Your task to perform on an android device: open app "Gmail" Image 0: 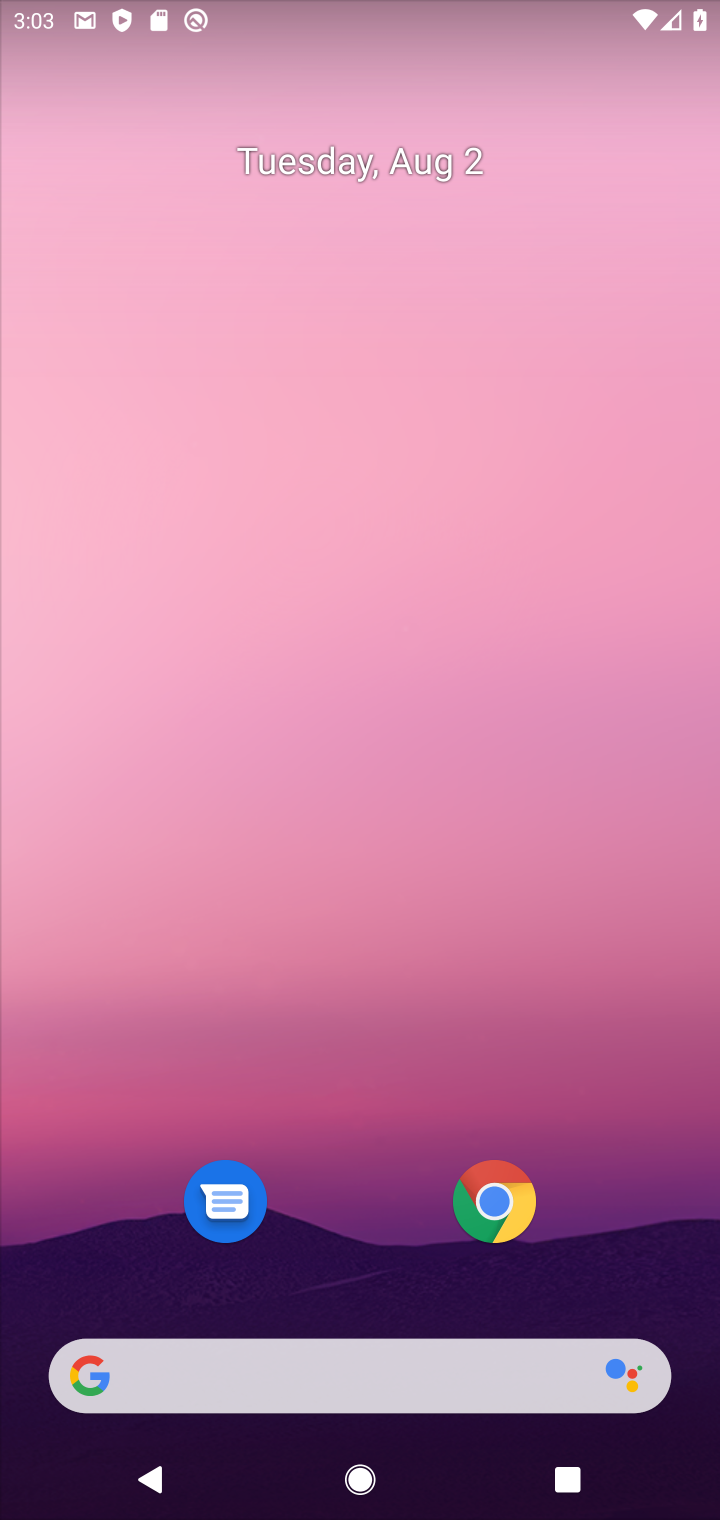
Step 0: press home button
Your task to perform on an android device: open app "Gmail" Image 1: 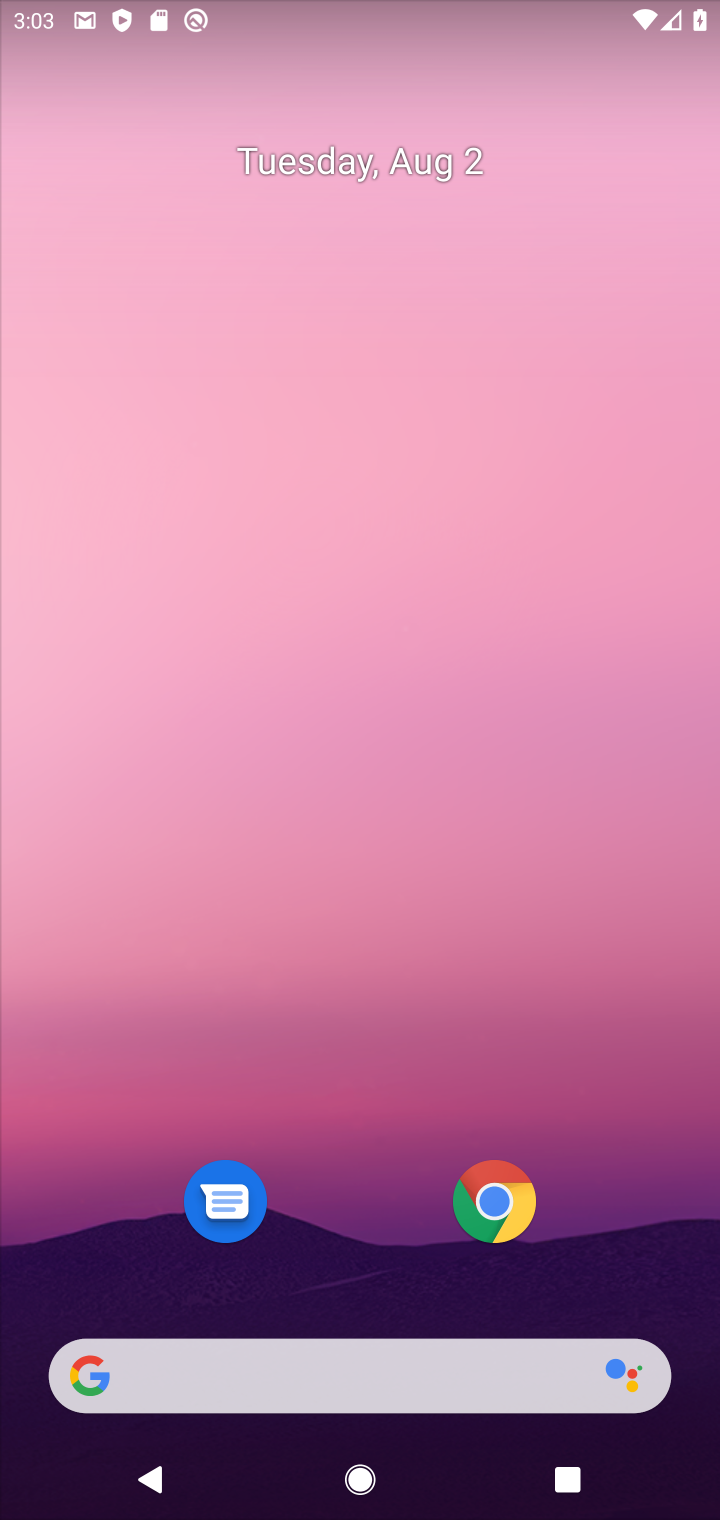
Step 1: drag from (368, 1281) to (458, 0)
Your task to perform on an android device: open app "Gmail" Image 2: 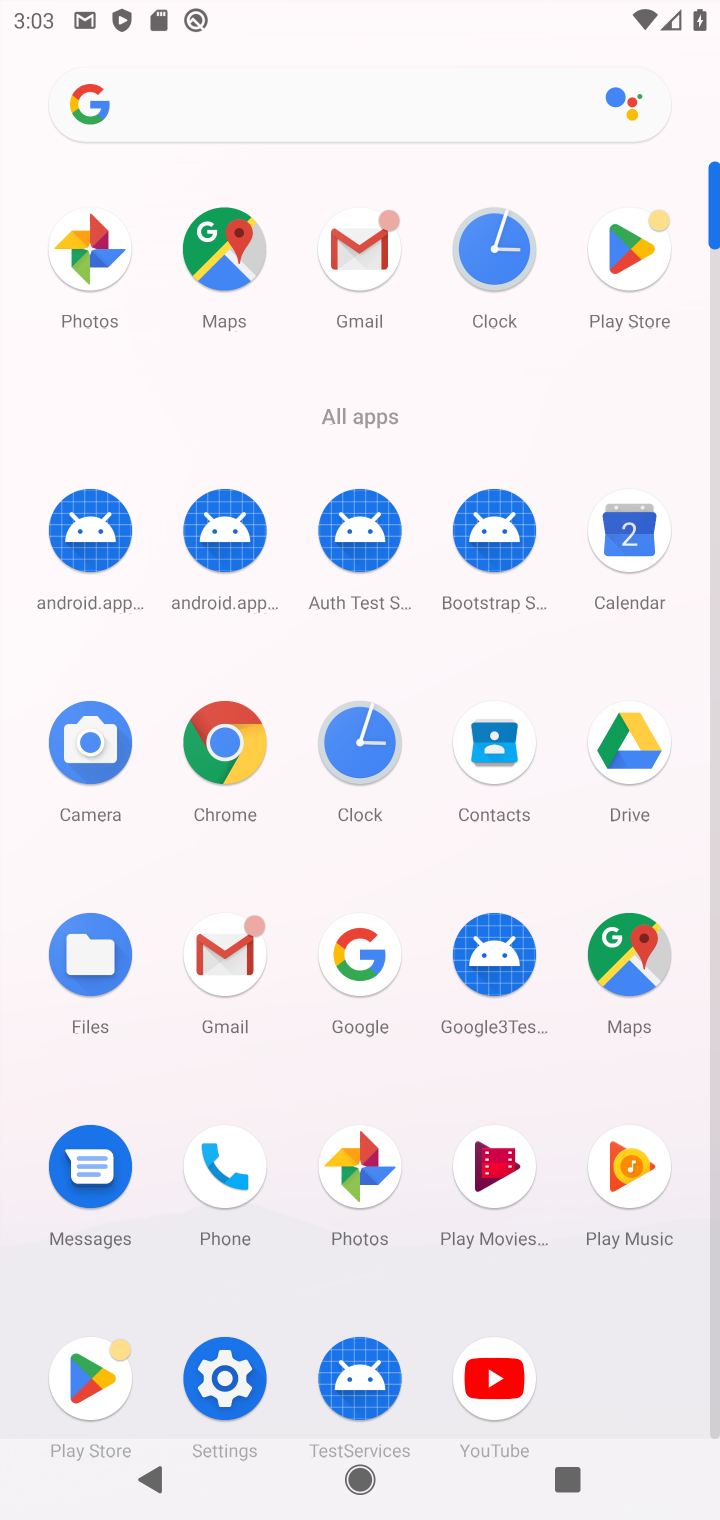
Step 2: click (634, 248)
Your task to perform on an android device: open app "Gmail" Image 3: 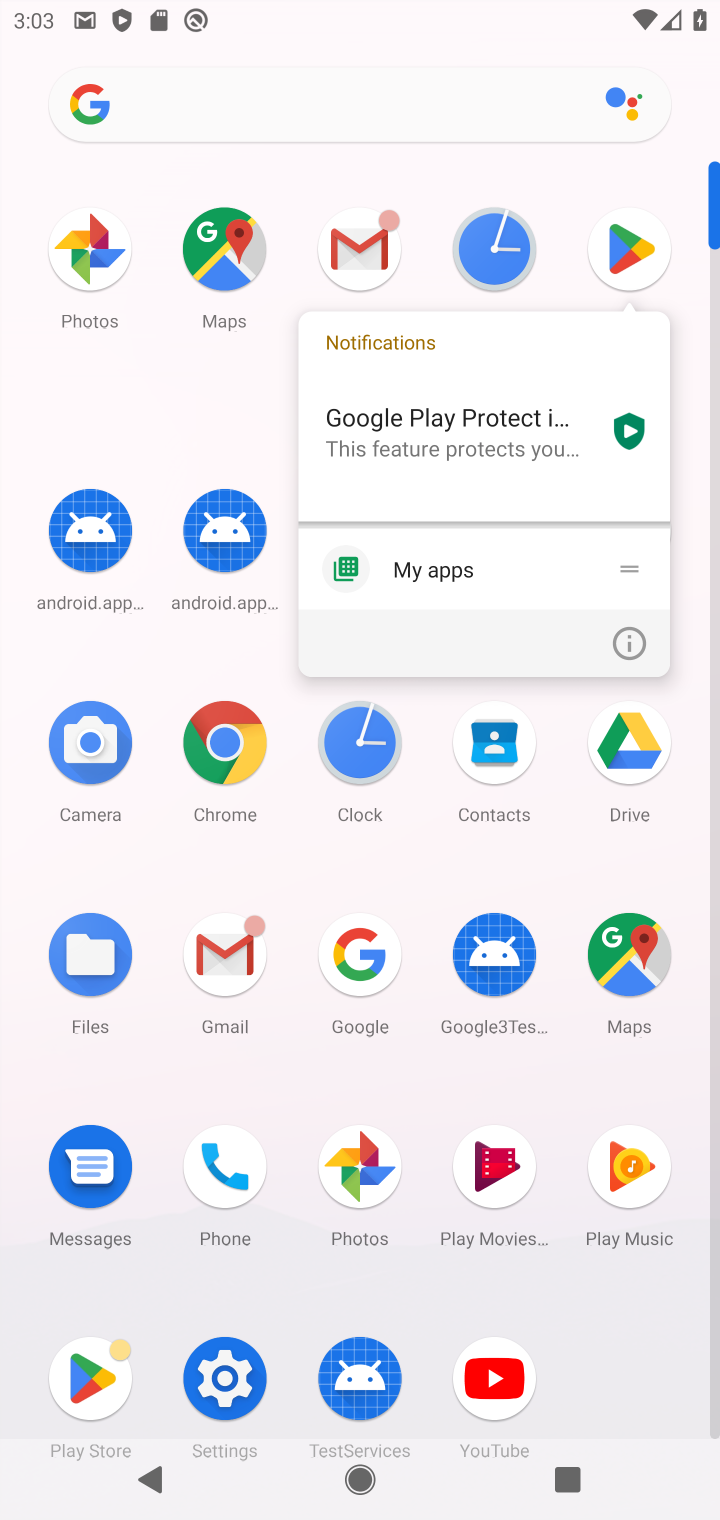
Step 3: click (623, 241)
Your task to perform on an android device: open app "Gmail" Image 4: 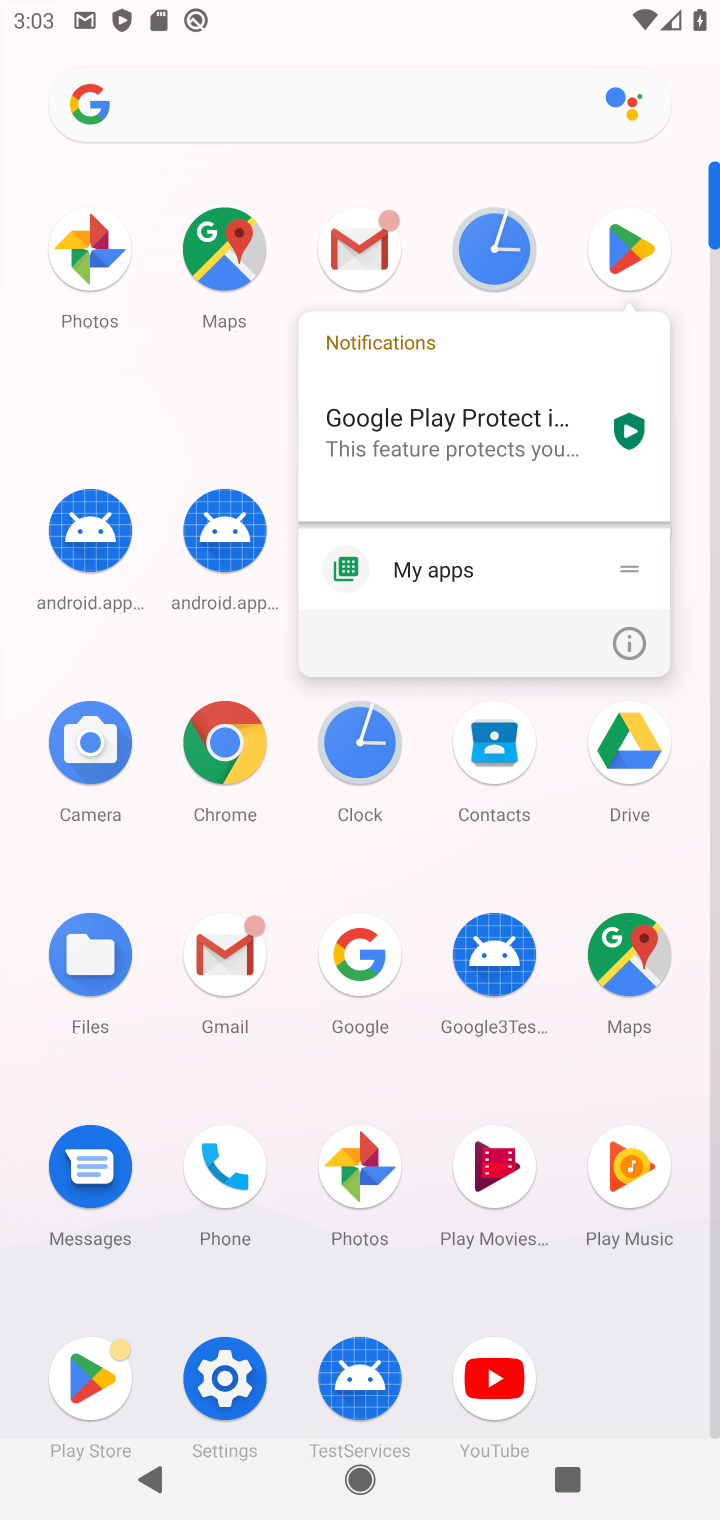
Step 4: click (627, 242)
Your task to perform on an android device: open app "Gmail" Image 5: 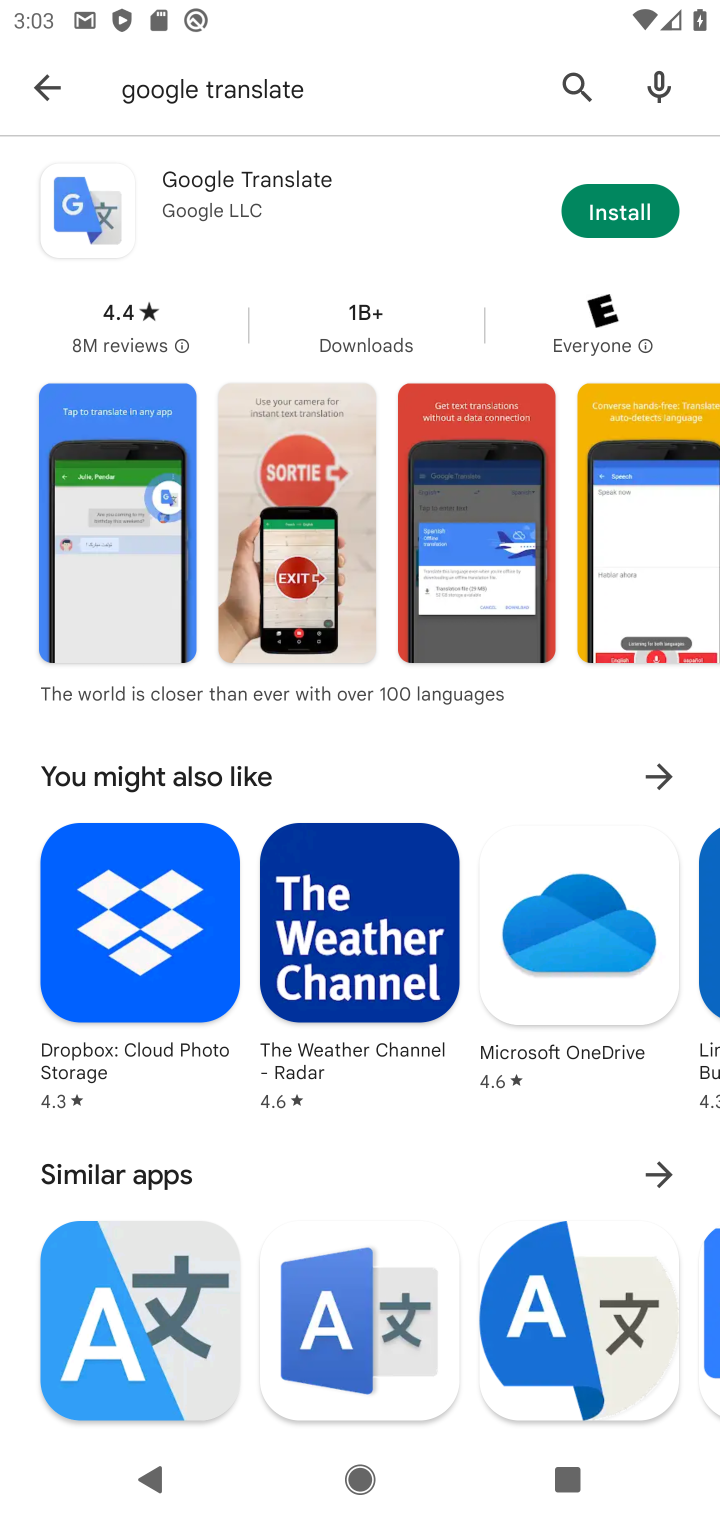
Step 5: click (567, 81)
Your task to perform on an android device: open app "Gmail" Image 6: 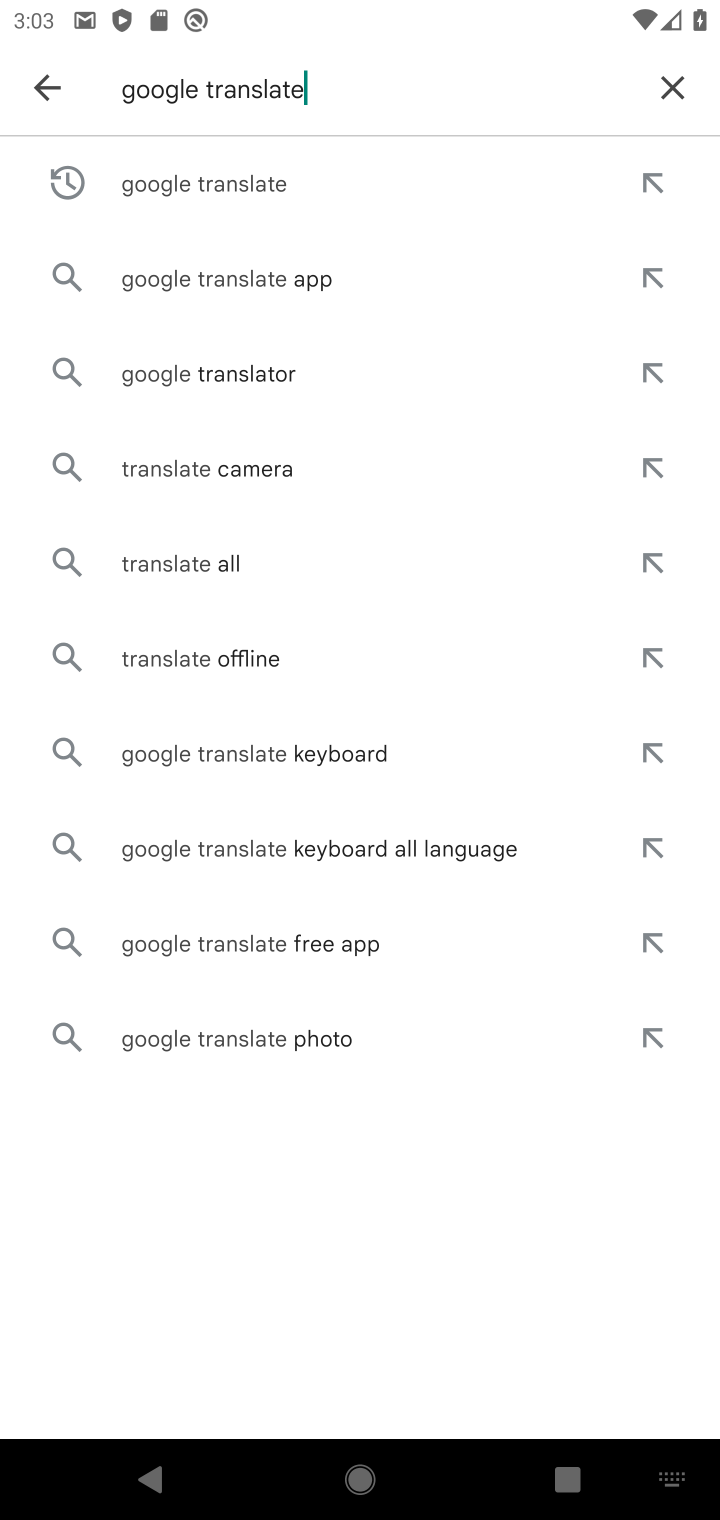
Step 6: click (676, 91)
Your task to perform on an android device: open app "Gmail" Image 7: 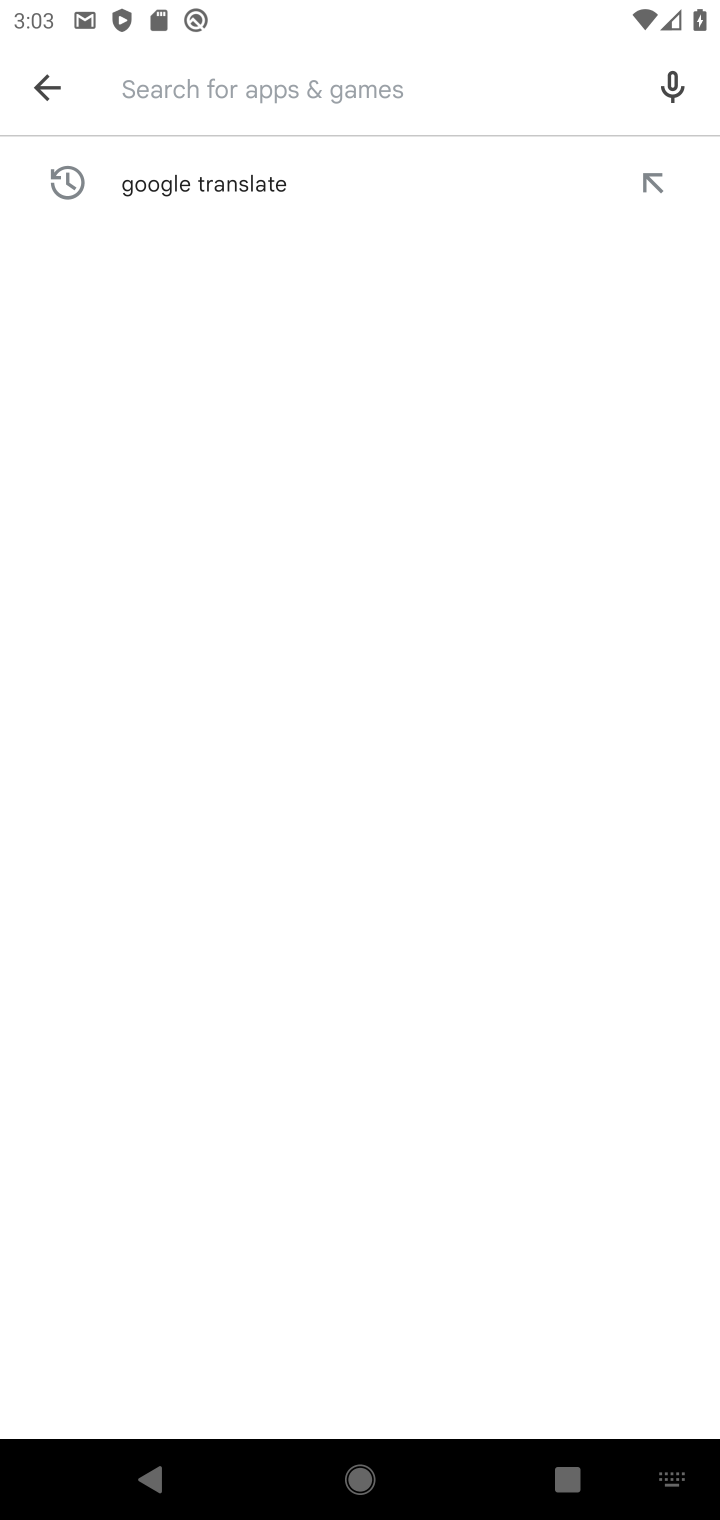
Step 7: type "gmail"
Your task to perform on an android device: open app "Gmail" Image 8: 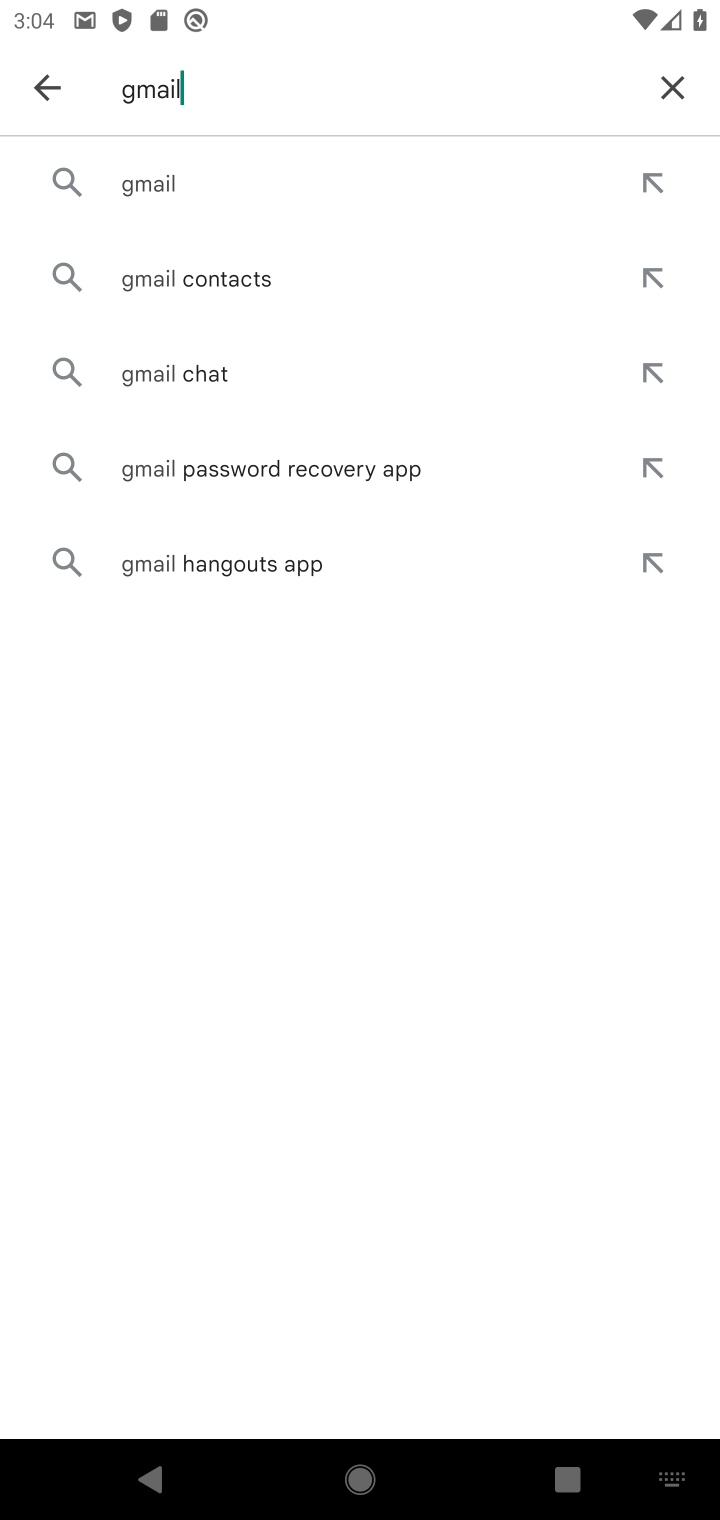
Step 8: click (149, 167)
Your task to perform on an android device: open app "Gmail" Image 9: 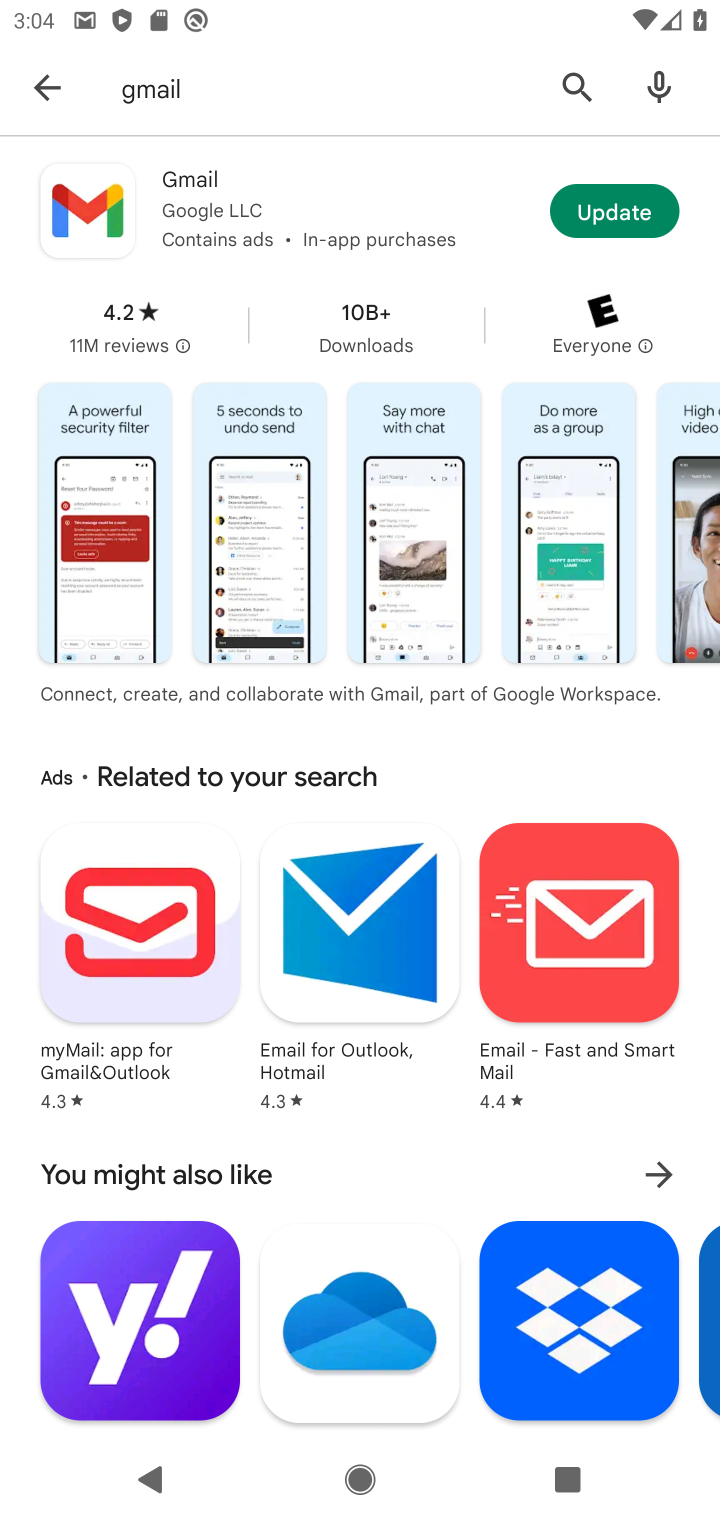
Step 9: click (613, 212)
Your task to perform on an android device: open app "Gmail" Image 10: 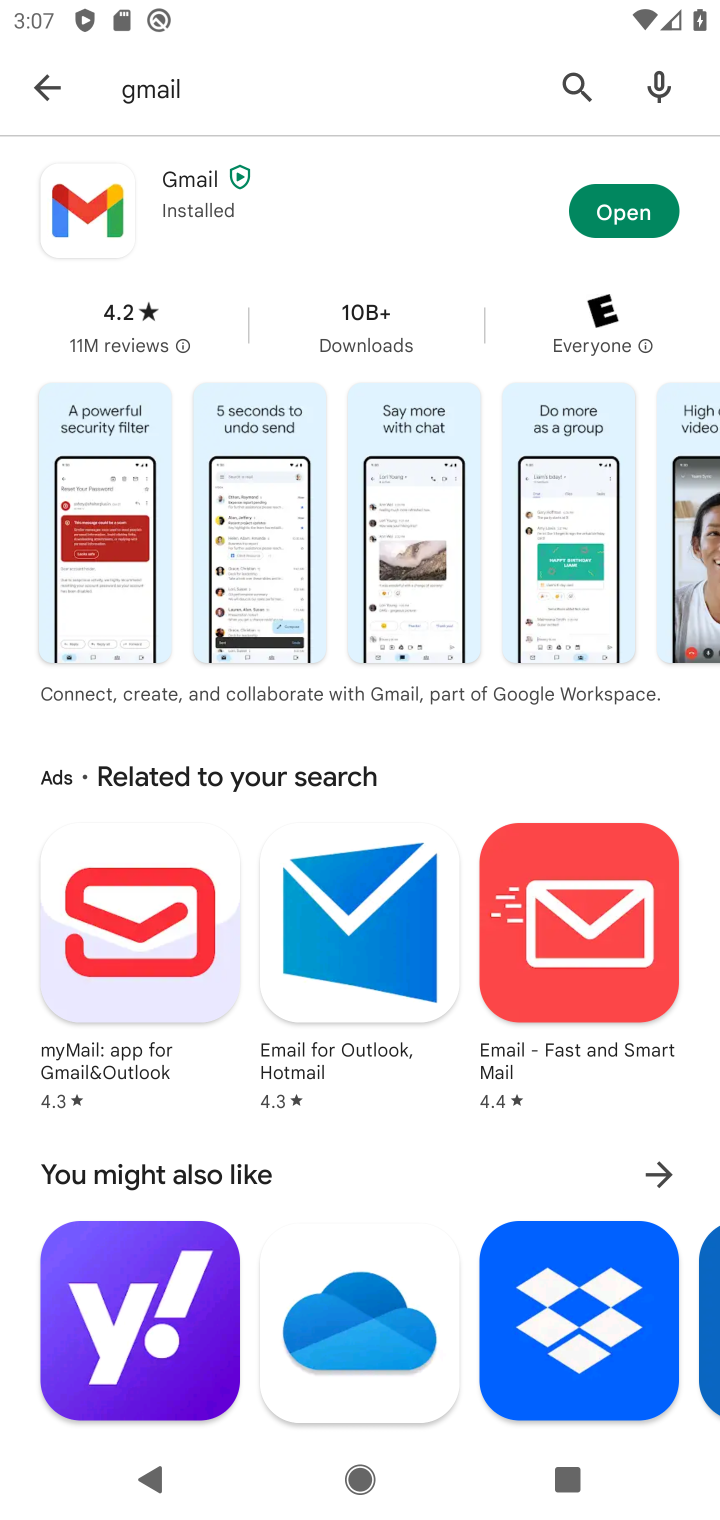
Step 10: click (625, 206)
Your task to perform on an android device: open app "Gmail" Image 11: 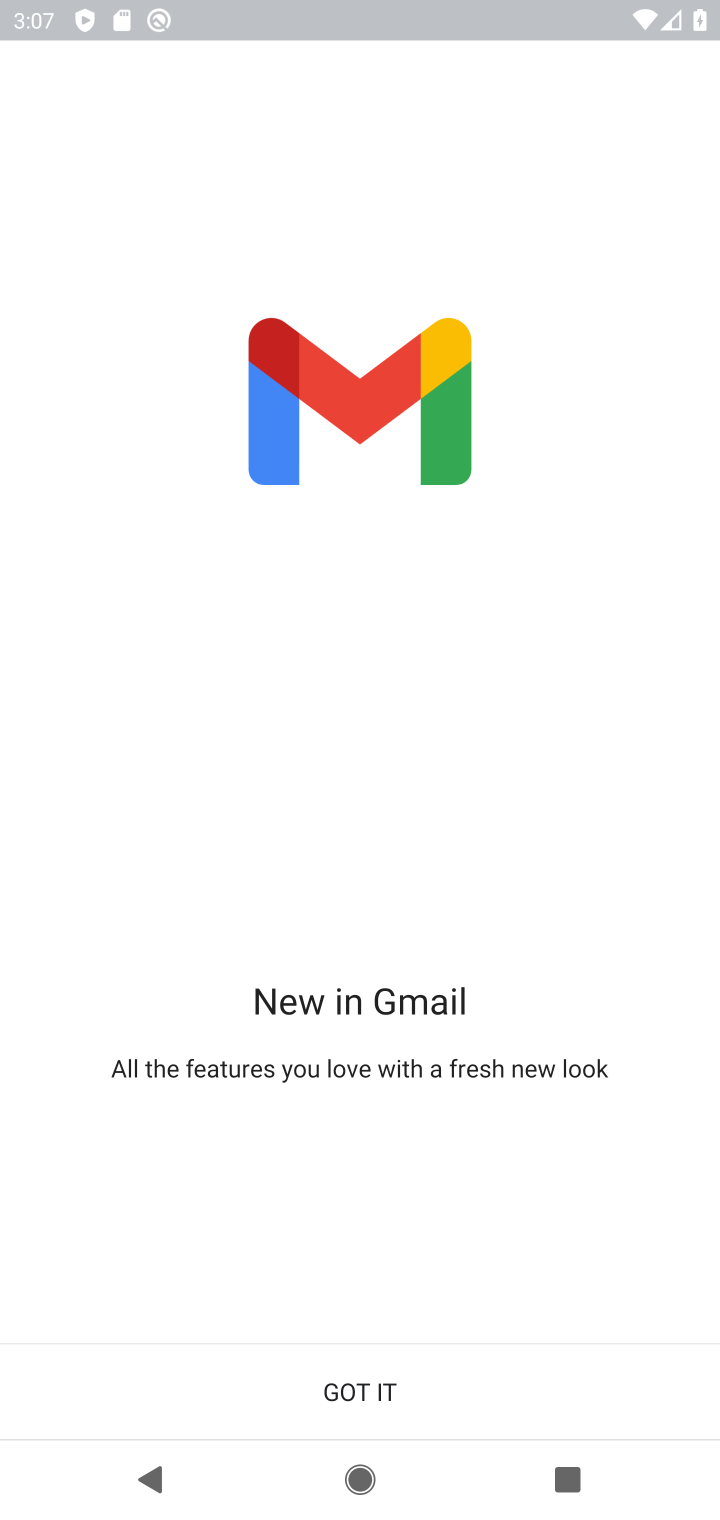
Step 11: click (336, 1390)
Your task to perform on an android device: open app "Gmail" Image 12: 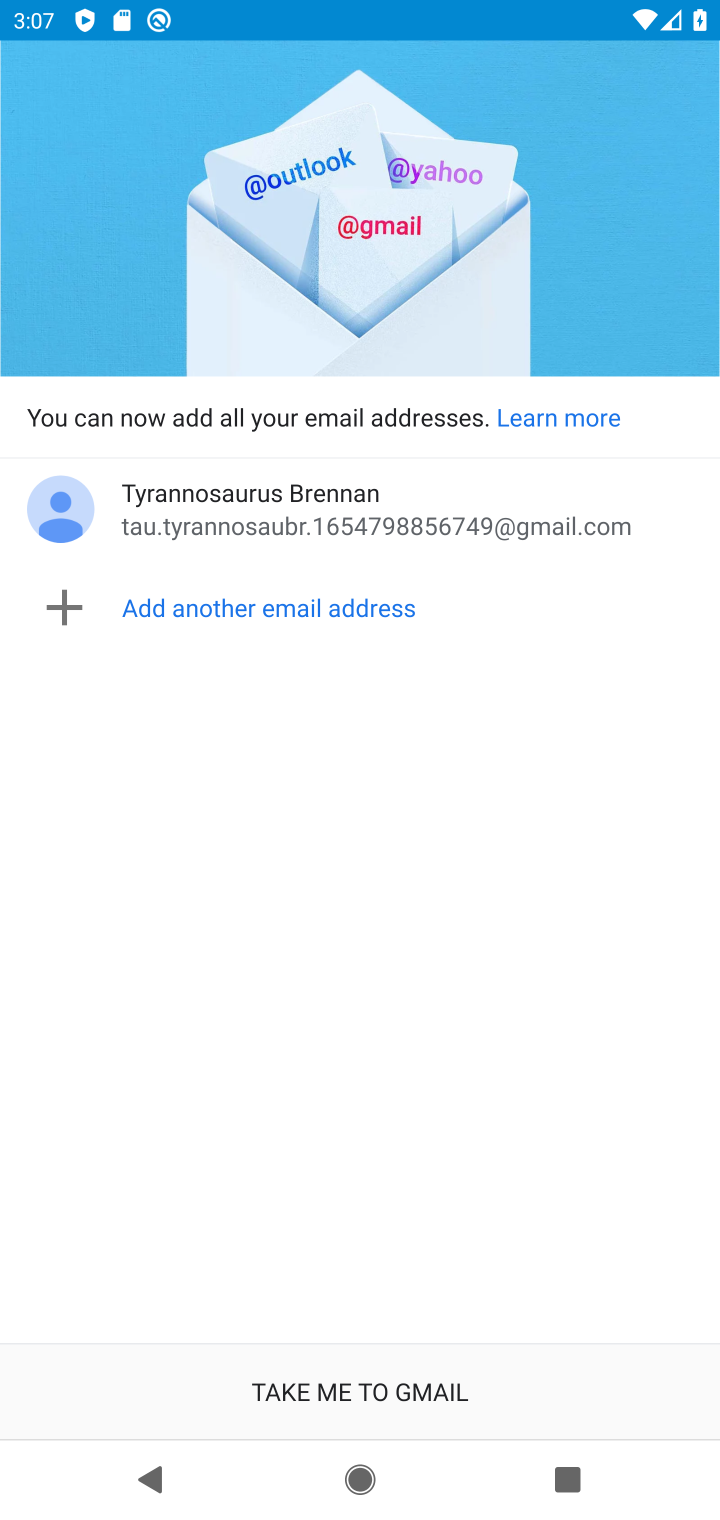
Step 12: click (354, 1409)
Your task to perform on an android device: open app "Gmail" Image 13: 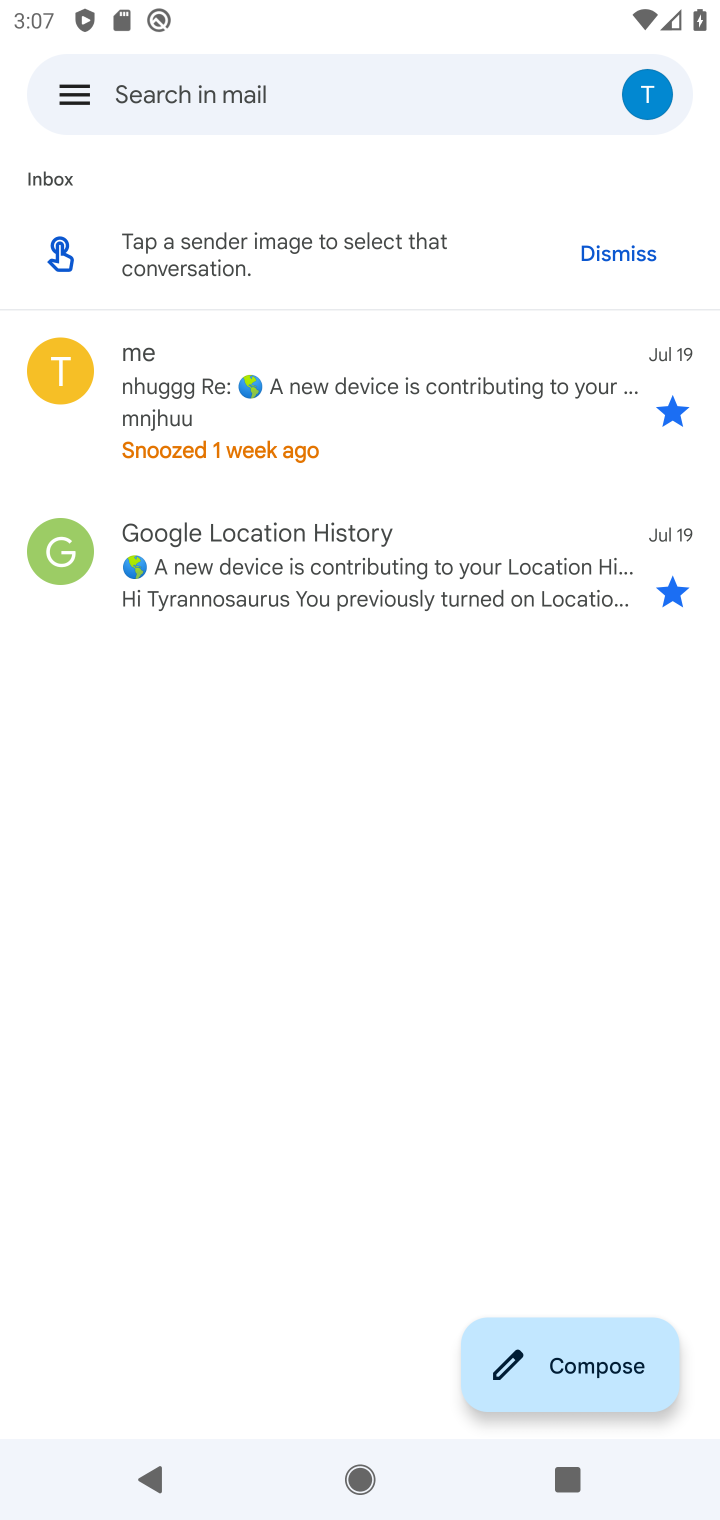
Step 13: task complete